Your task to perform on an android device: toggle javascript in the chrome app Image 0: 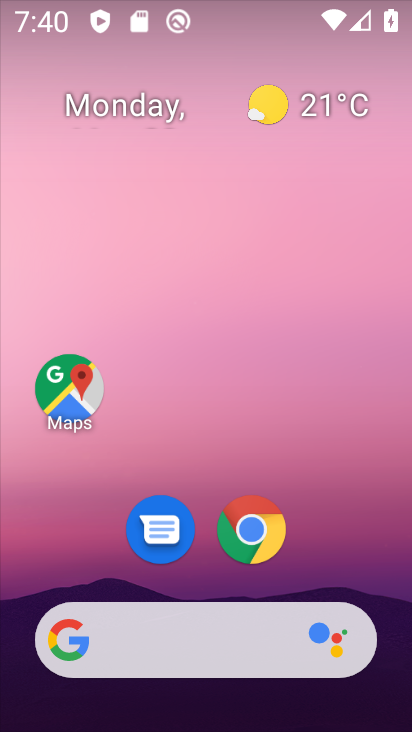
Step 0: click (254, 529)
Your task to perform on an android device: toggle javascript in the chrome app Image 1: 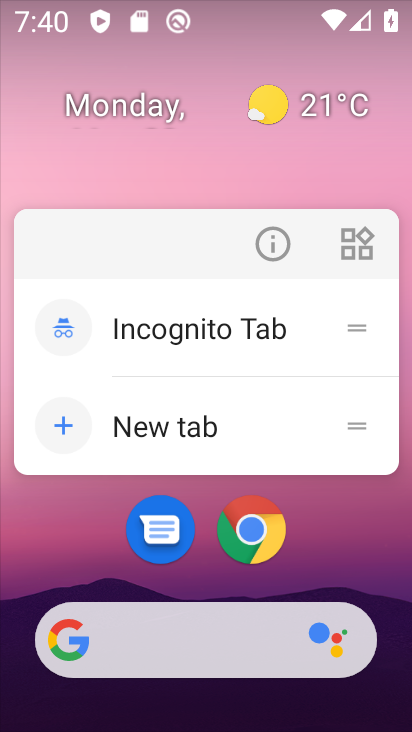
Step 1: click (252, 527)
Your task to perform on an android device: toggle javascript in the chrome app Image 2: 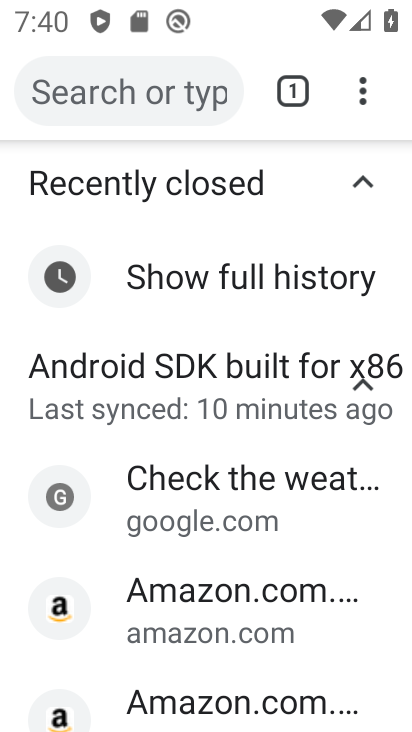
Step 2: click (401, 130)
Your task to perform on an android device: toggle javascript in the chrome app Image 3: 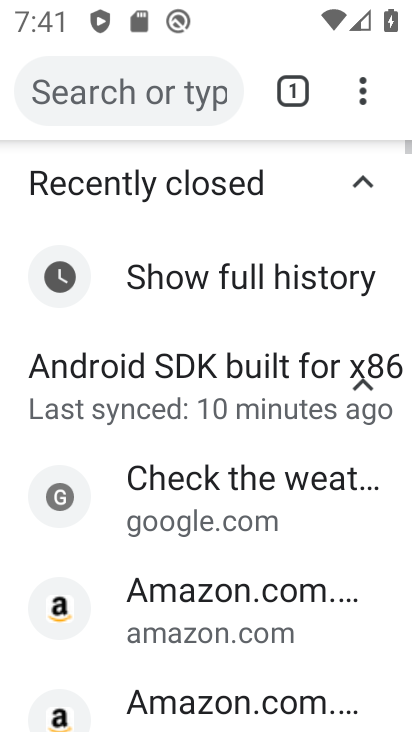
Step 3: click (392, 126)
Your task to perform on an android device: toggle javascript in the chrome app Image 4: 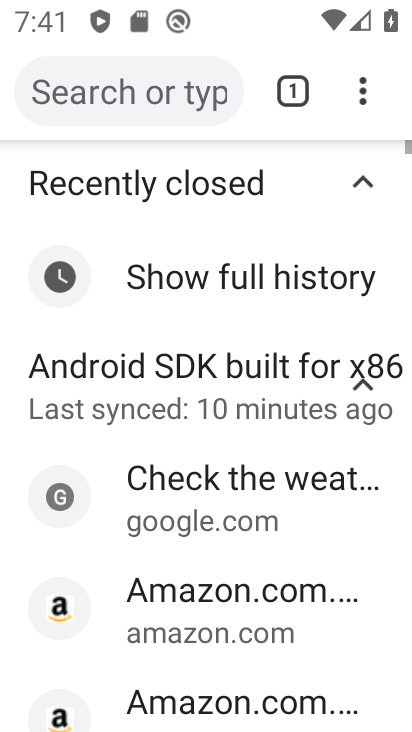
Step 4: click (388, 122)
Your task to perform on an android device: toggle javascript in the chrome app Image 5: 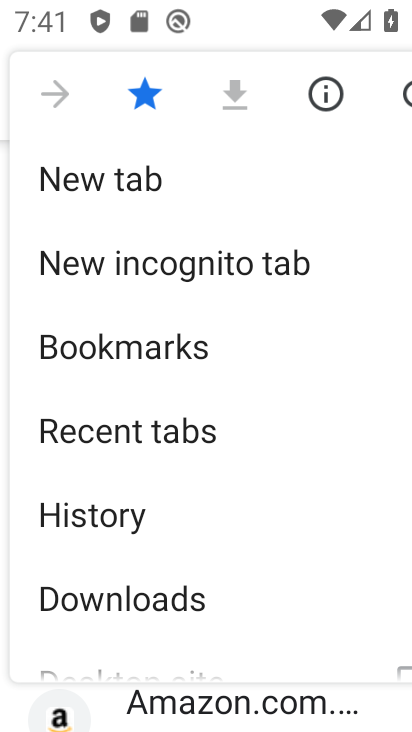
Step 5: drag from (263, 601) to (339, 256)
Your task to perform on an android device: toggle javascript in the chrome app Image 6: 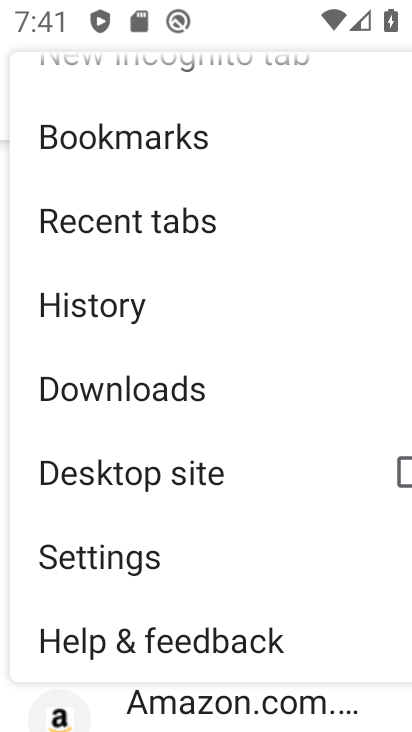
Step 6: click (232, 569)
Your task to perform on an android device: toggle javascript in the chrome app Image 7: 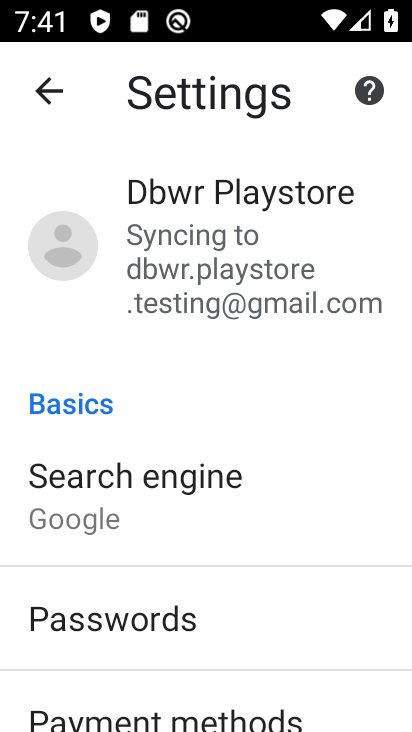
Step 7: drag from (215, 672) to (274, 270)
Your task to perform on an android device: toggle javascript in the chrome app Image 8: 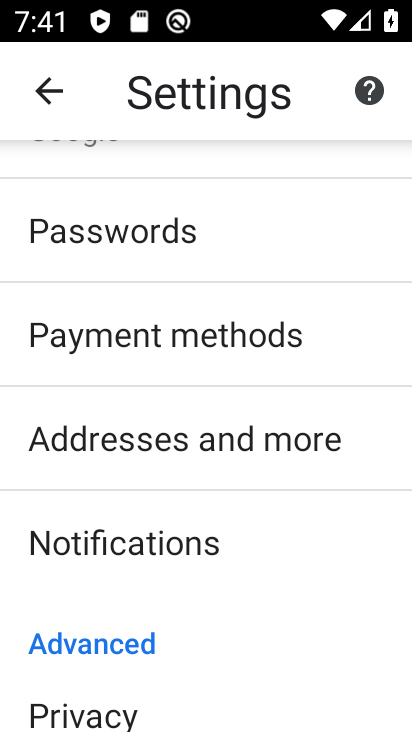
Step 8: drag from (208, 668) to (247, 361)
Your task to perform on an android device: toggle javascript in the chrome app Image 9: 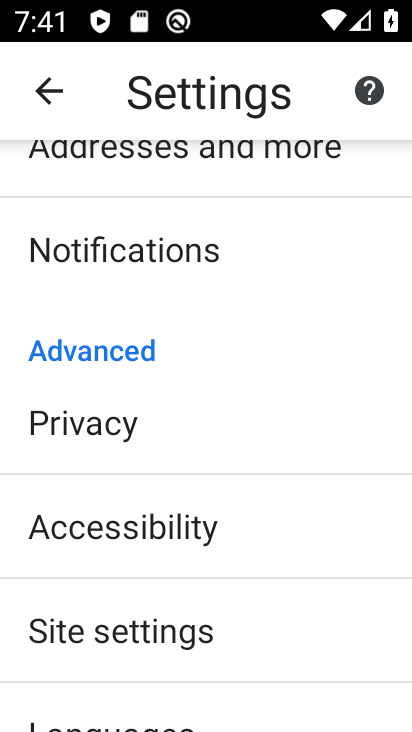
Step 9: click (177, 636)
Your task to perform on an android device: toggle javascript in the chrome app Image 10: 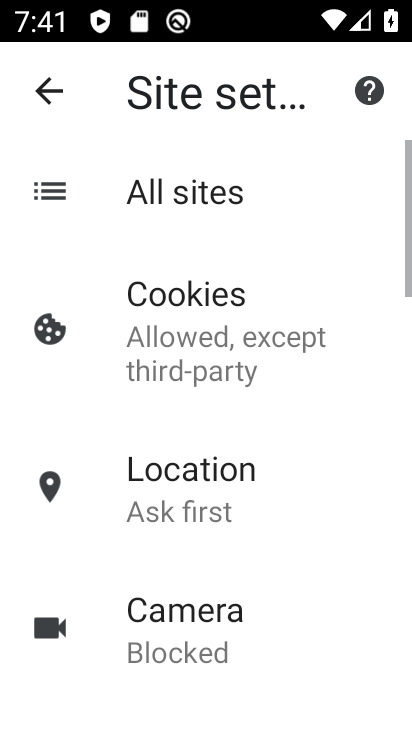
Step 10: drag from (194, 665) to (243, 424)
Your task to perform on an android device: toggle javascript in the chrome app Image 11: 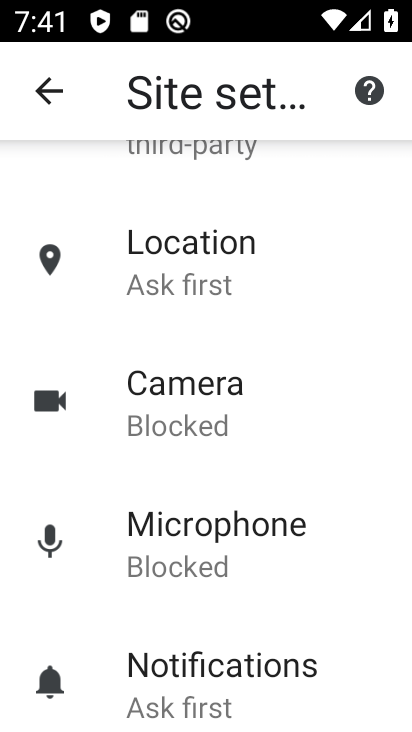
Step 11: drag from (199, 686) to (228, 531)
Your task to perform on an android device: toggle javascript in the chrome app Image 12: 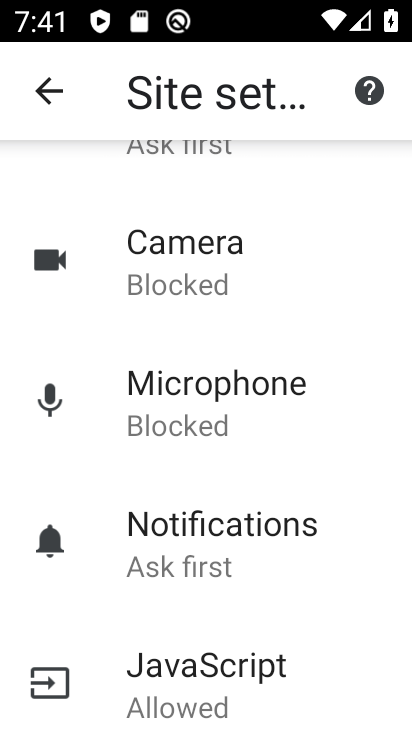
Step 12: click (197, 700)
Your task to perform on an android device: toggle javascript in the chrome app Image 13: 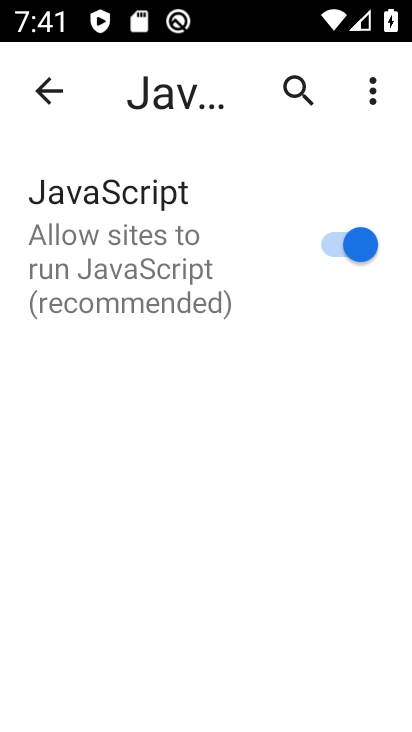
Step 13: click (332, 263)
Your task to perform on an android device: toggle javascript in the chrome app Image 14: 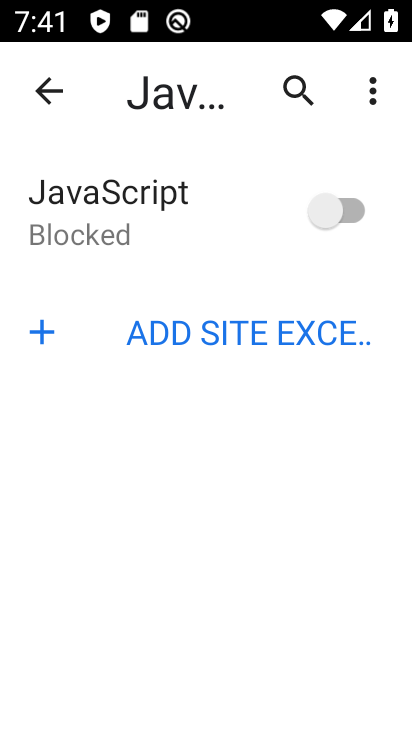
Step 14: task complete